Your task to perform on an android device: toggle priority inbox in the gmail app Image 0: 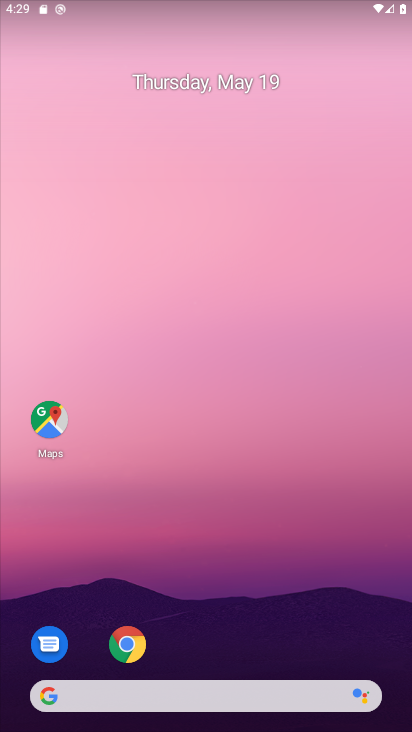
Step 0: press home button
Your task to perform on an android device: toggle priority inbox in the gmail app Image 1: 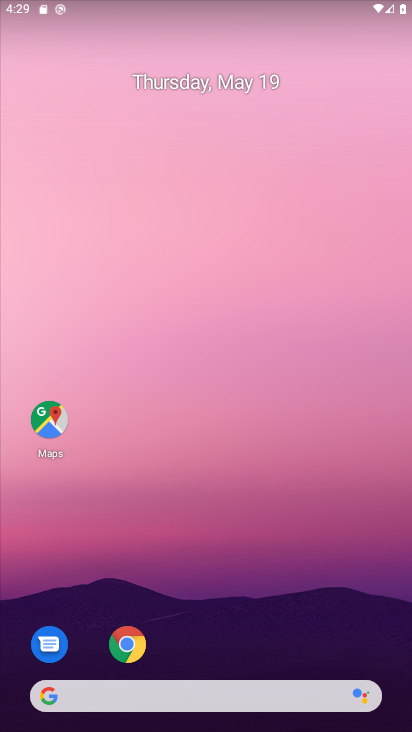
Step 1: drag from (354, 627) to (382, 95)
Your task to perform on an android device: toggle priority inbox in the gmail app Image 2: 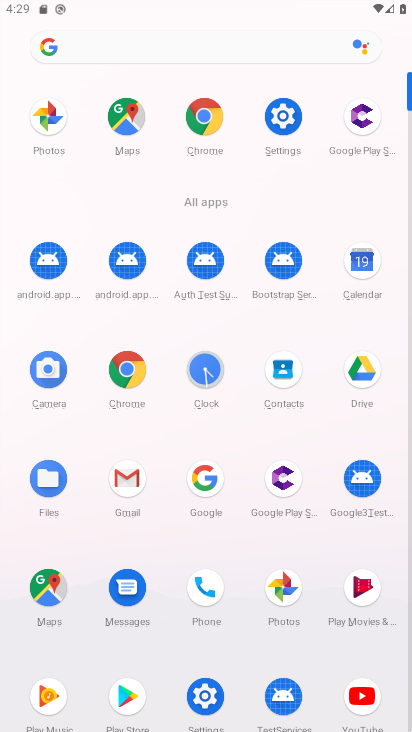
Step 2: click (140, 511)
Your task to perform on an android device: toggle priority inbox in the gmail app Image 3: 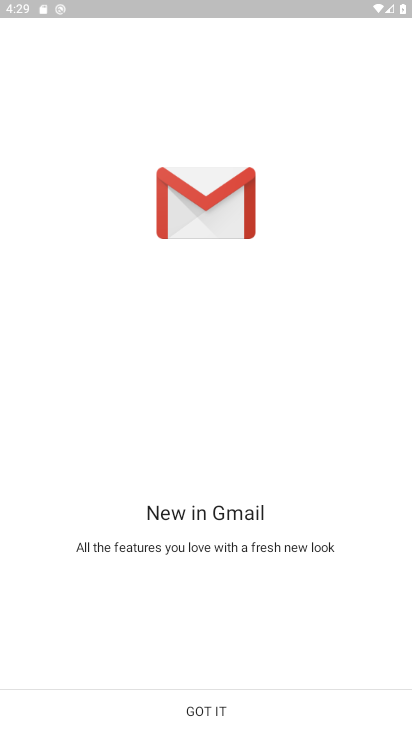
Step 3: click (217, 718)
Your task to perform on an android device: toggle priority inbox in the gmail app Image 4: 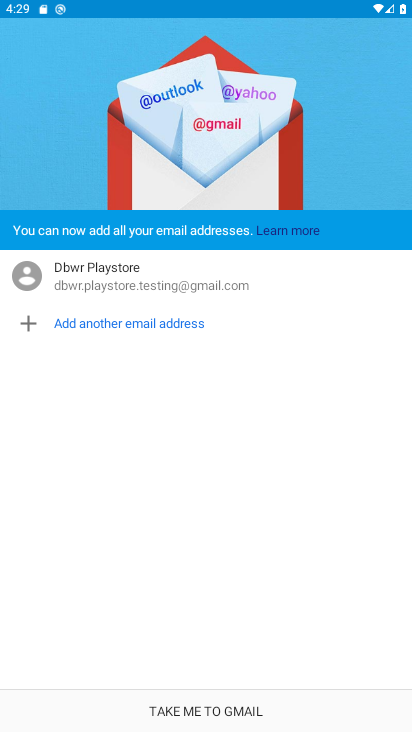
Step 4: click (217, 718)
Your task to perform on an android device: toggle priority inbox in the gmail app Image 5: 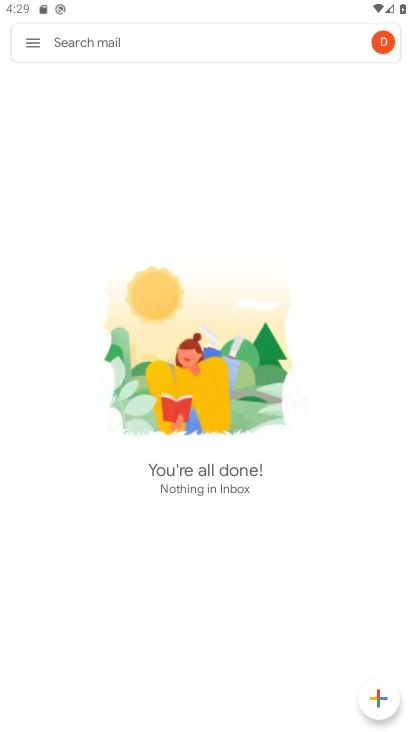
Step 5: click (32, 37)
Your task to perform on an android device: toggle priority inbox in the gmail app Image 6: 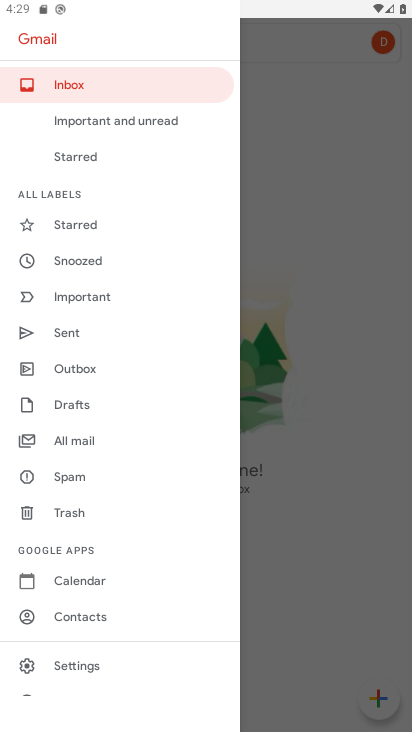
Step 6: click (48, 662)
Your task to perform on an android device: toggle priority inbox in the gmail app Image 7: 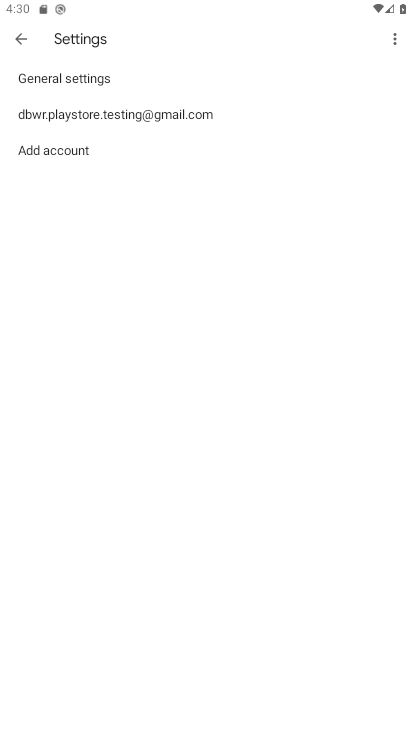
Step 7: click (121, 119)
Your task to perform on an android device: toggle priority inbox in the gmail app Image 8: 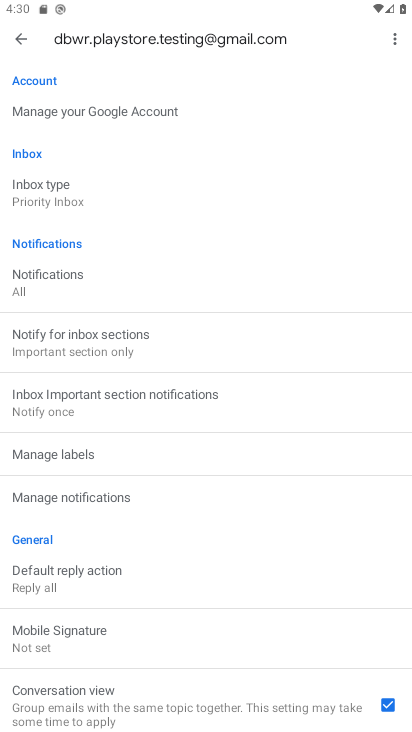
Step 8: click (49, 203)
Your task to perform on an android device: toggle priority inbox in the gmail app Image 9: 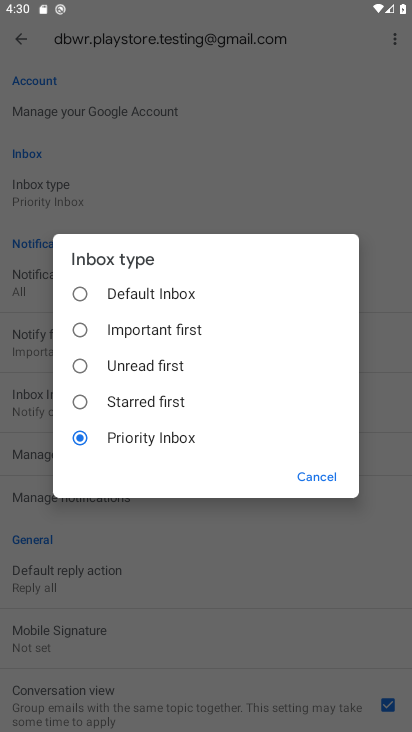
Step 9: click (309, 479)
Your task to perform on an android device: toggle priority inbox in the gmail app Image 10: 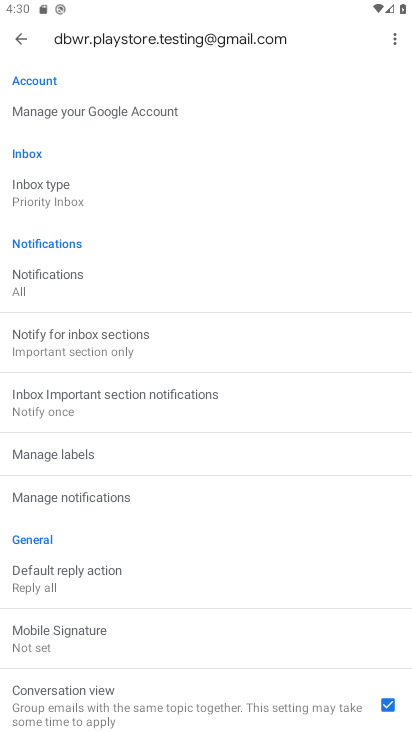
Step 10: task complete